Your task to perform on an android device: clear all cookies in the chrome app Image 0: 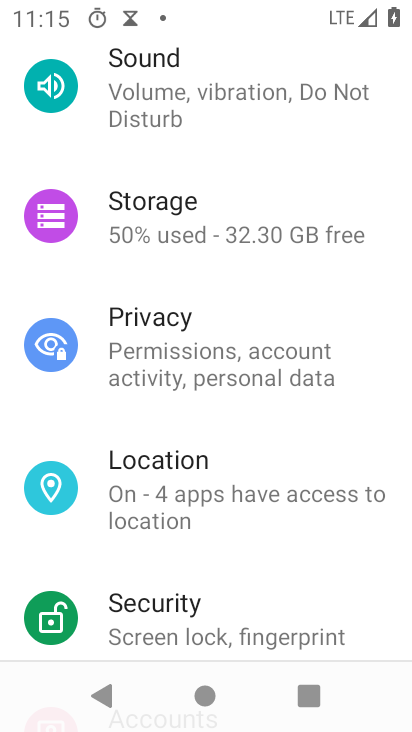
Step 0: press home button
Your task to perform on an android device: clear all cookies in the chrome app Image 1: 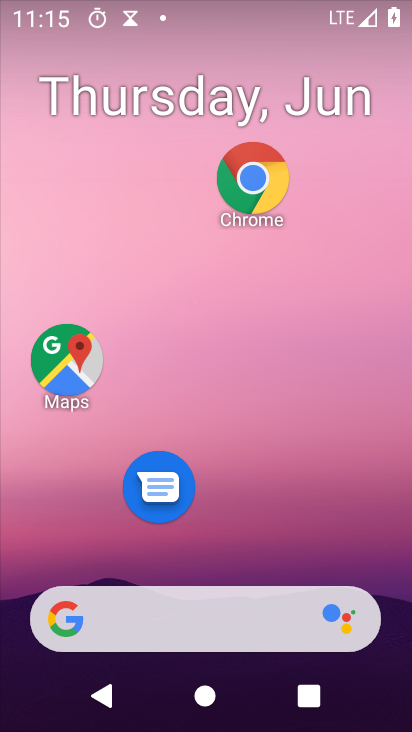
Step 1: drag from (237, 707) to (253, 186)
Your task to perform on an android device: clear all cookies in the chrome app Image 2: 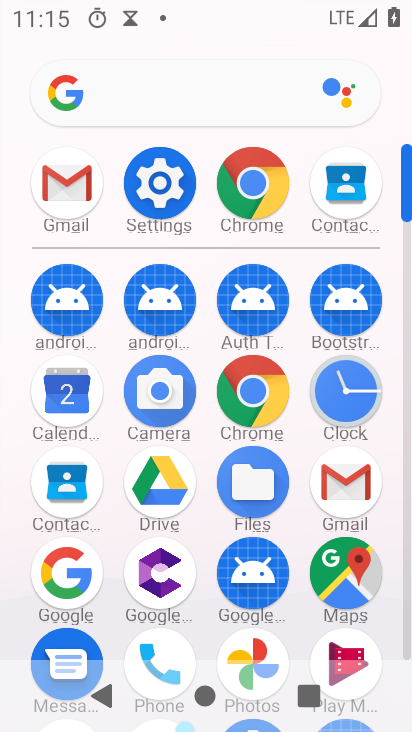
Step 2: click (253, 390)
Your task to perform on an android device: clear all cookies in the chrome app Image 3: 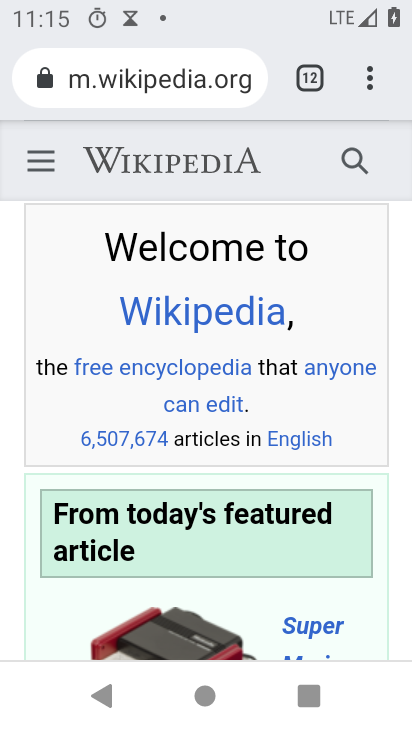
Step 3: click (373, 88)
Your task to perform on an android device: clear all cookies in the chrome app Image 4: 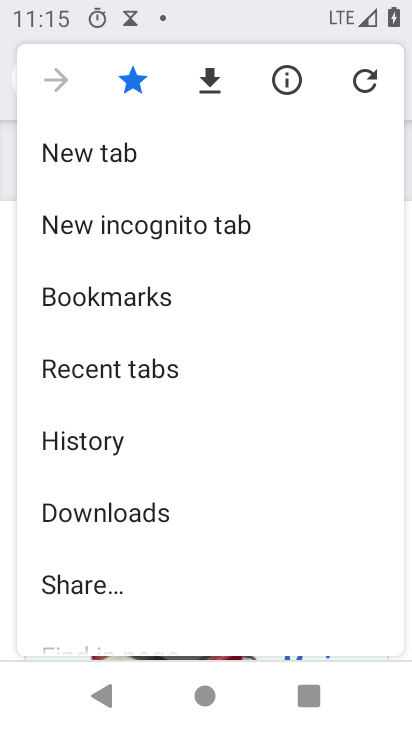
Step 4: click (91, 440)
Your task to perform on an android device: clear all cookies in the chrome app Image 5: 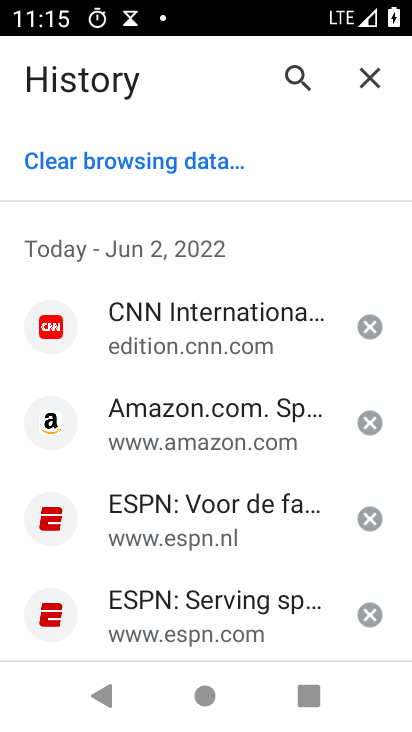
Step 5: click (97, 162)
Your task to perform on an android device: clear all cookies in the chrome app Image 6: 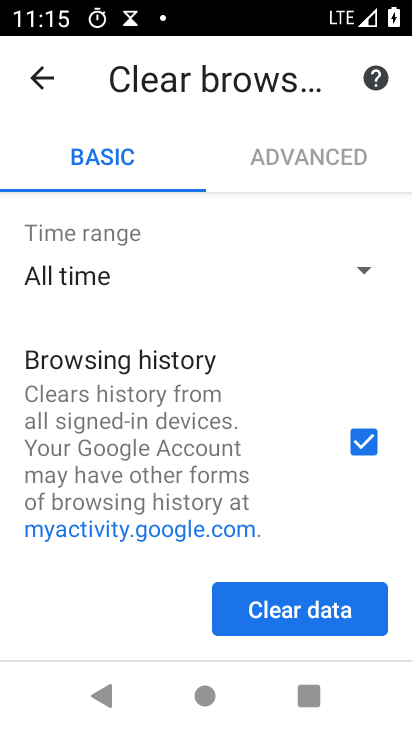
Step 6: drag from (288, 542) to (299, 327)
Your task to perform on an android device: clear all cookies in the chrome app Image 7: 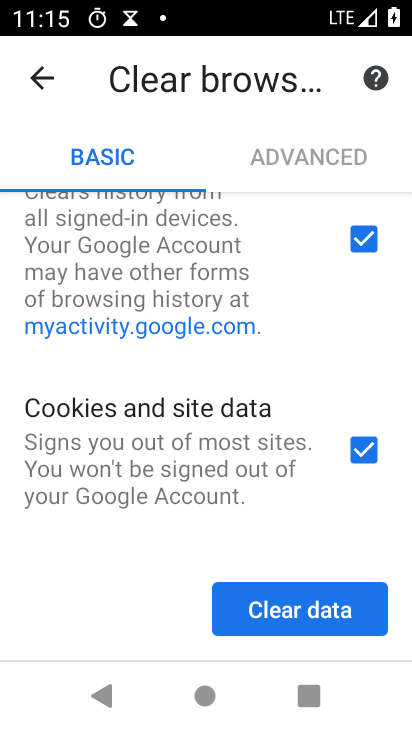
Step 7: click (366, 238)
Your task to perform on an android device: clear all cookies in the chrome app Image 8: 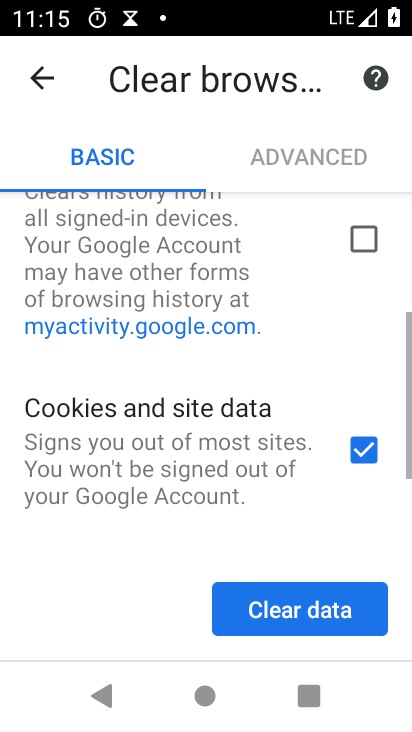
Step 8: drag from (314, 536) to (318, 327)
Your task to perform on an android device: clear all cookies in the chrome app Image 9: 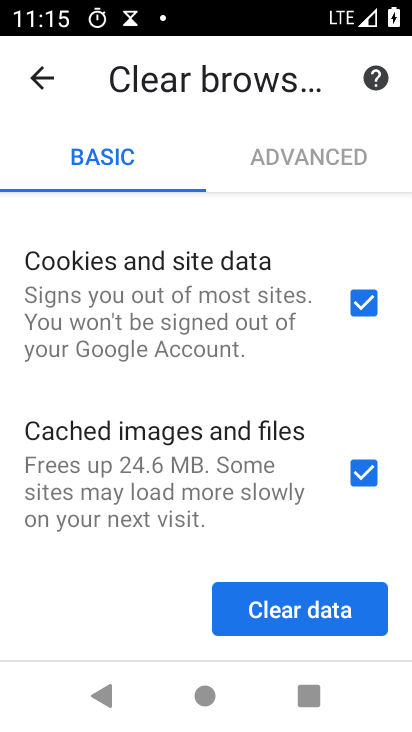
Step 9: click (369, 466)
Your task to perform on an android device: clear all cookies in the chrome app Image 10: 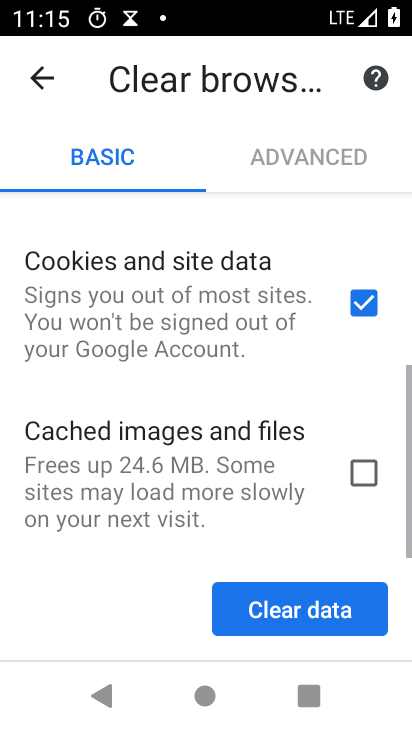
Step 10: click (303, 608)
Your task to perform on an android device: clear all cookies in the chrome app Image 11: 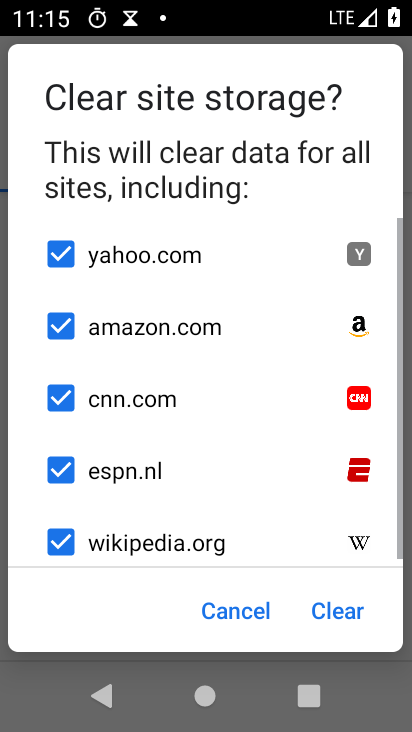
Step 11: click (332, 604)
Your task to perform on an android device: clear all cookies in the chrome app Image 12: 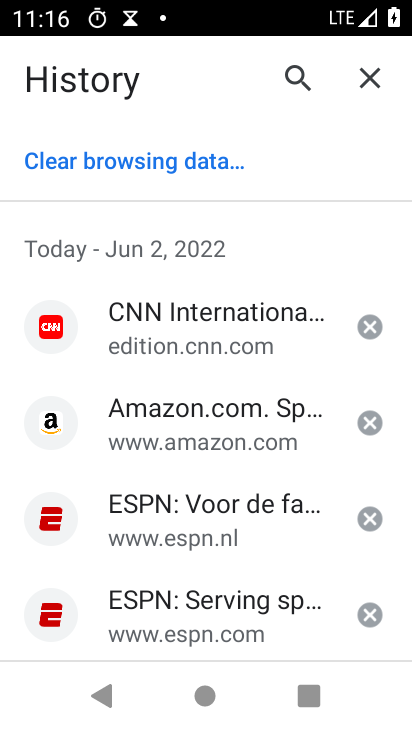
Step 12: task complete